Your task to perform on an android device: change the upload size in google photos Image 0: 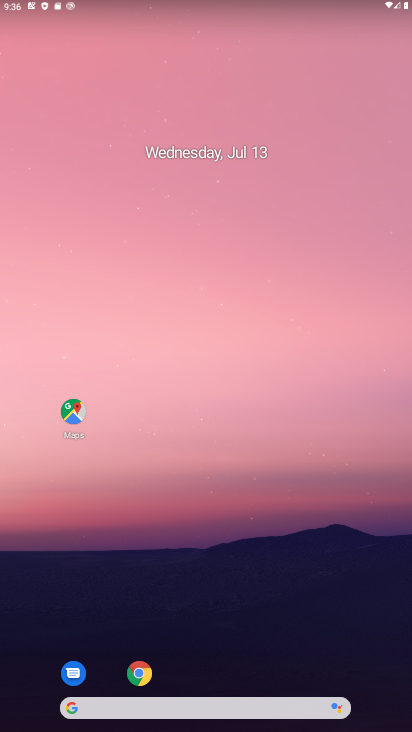
Step 0: drag from (231, 672) to (302, 63)
Your task to perform on an android device: change the upload size in google photos Image 1: 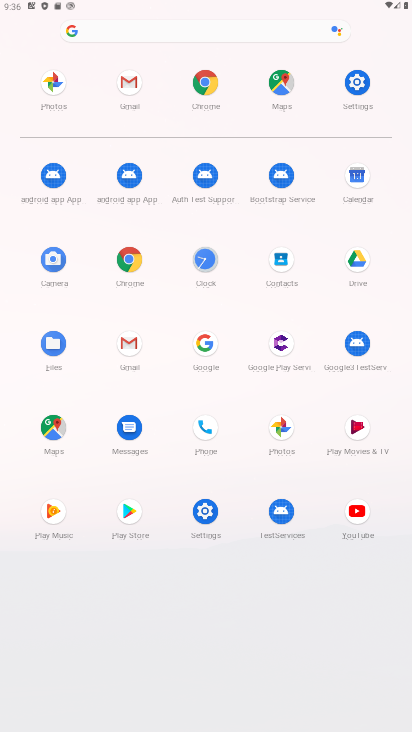
Step 1: click (280, 419)
Your task to perform on an android device: change the upload size in google photos Image 2: 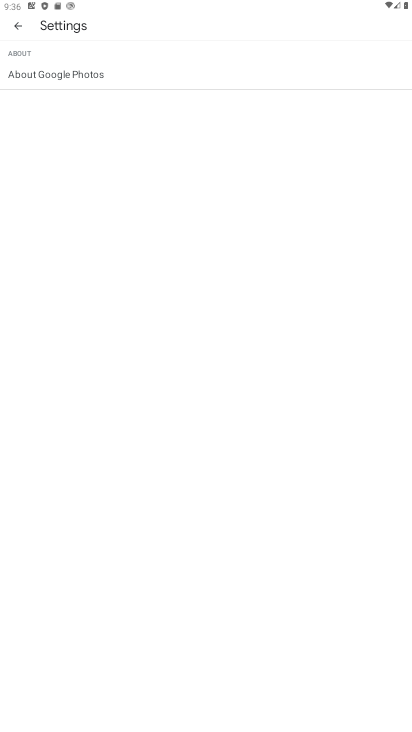
Step 2: click (18, 36)
Your task to perform on an android device: change the upload size in google photos Image 3: 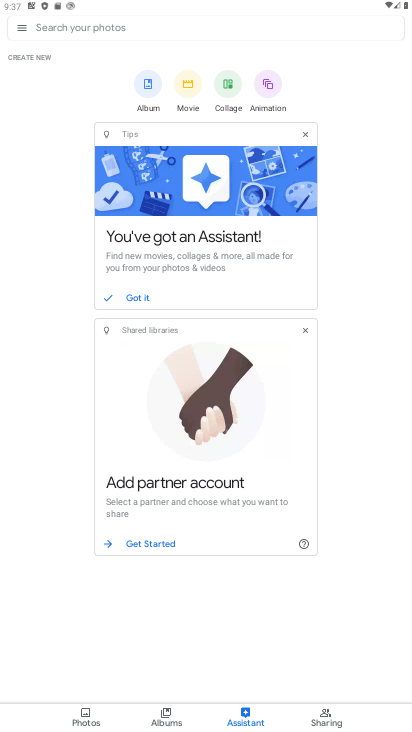
Step 3: click (26, 34)
Your task to perform on an android device: change the upload size in google photos Image 4: 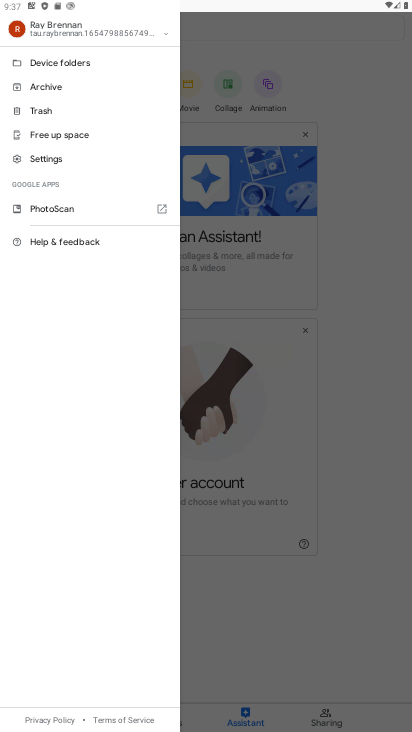
Step 4: click (48, 157)
Your task to perform on an android device: change the upload size in google photos Image 5: 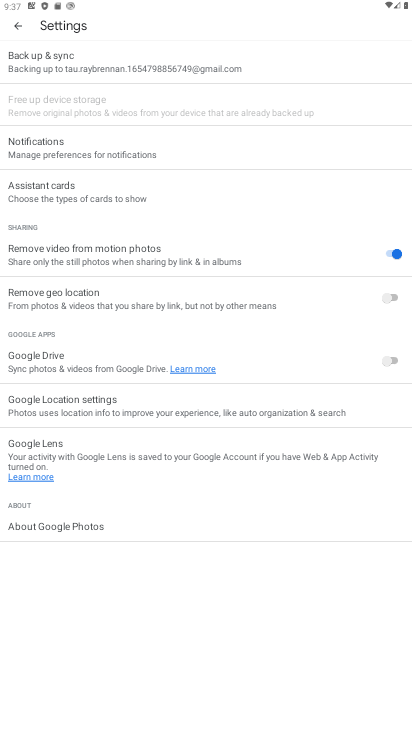
Step 5: click (164, 57)
Your task to perform on an android device: change the upload size in google photos Image 6: 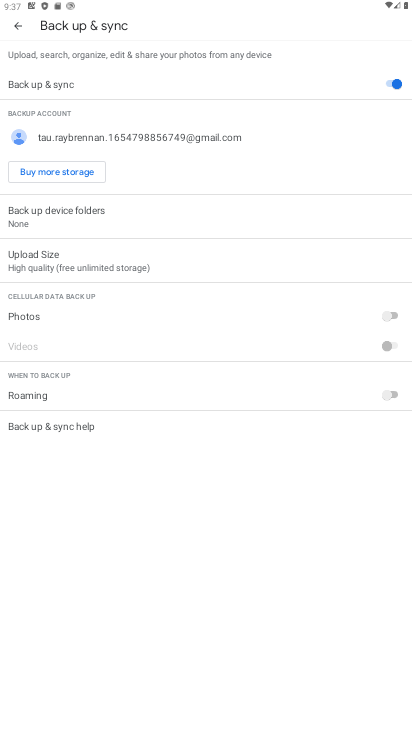
Step 6: click (98, 266)
Your task to perform on an android device: change the upload size in google photos Image 7: 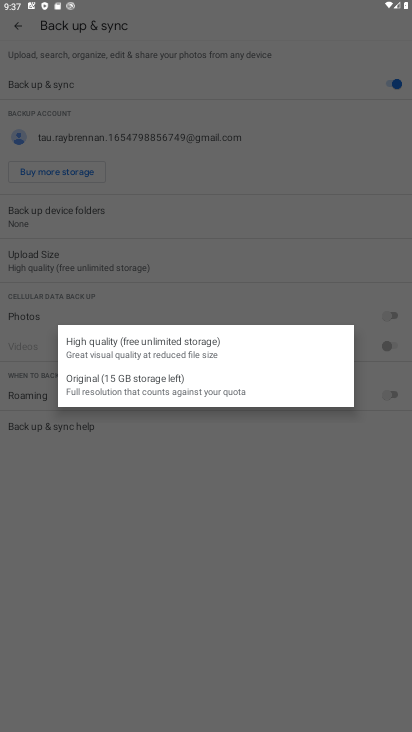
Step 7: click (162, 383)
Your task to perform on an android device: change the upload size in google photos Image 8: 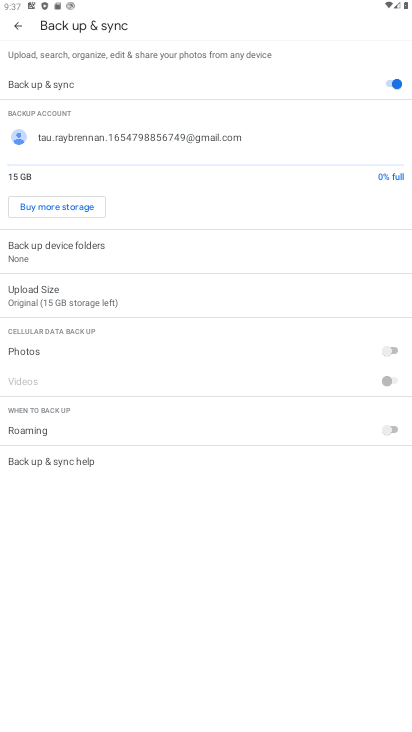
Step 8: task complete